Your task to perform on an android device: Show me recent news Image 0: 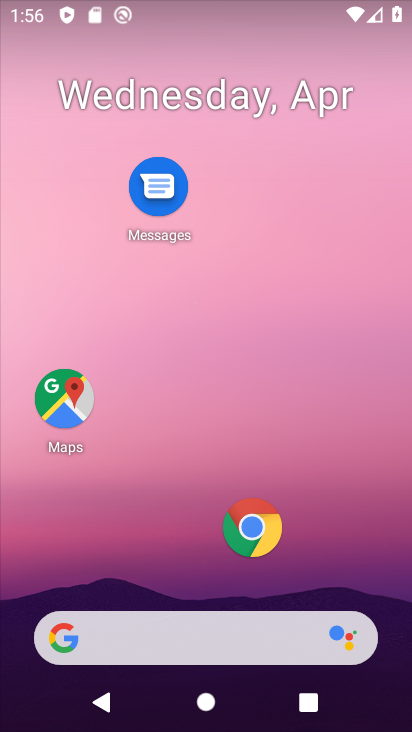
Step 0: click (257, 530)
Your task to perform on an android device: Show me recent news Image 1: 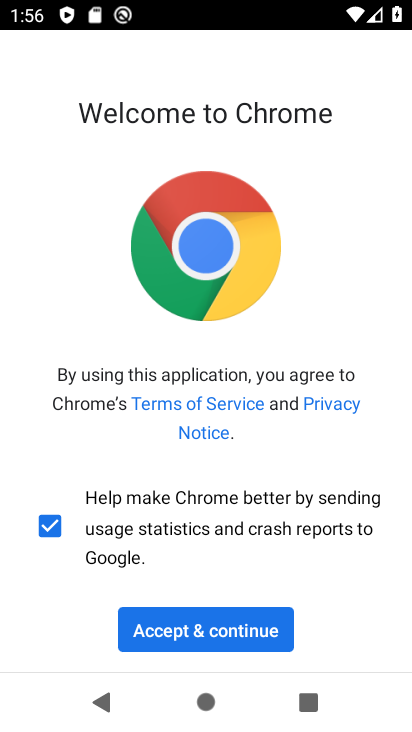
Step 1: click (199, 633)
Your task to perform on an android device: Show me recent news Image 2: 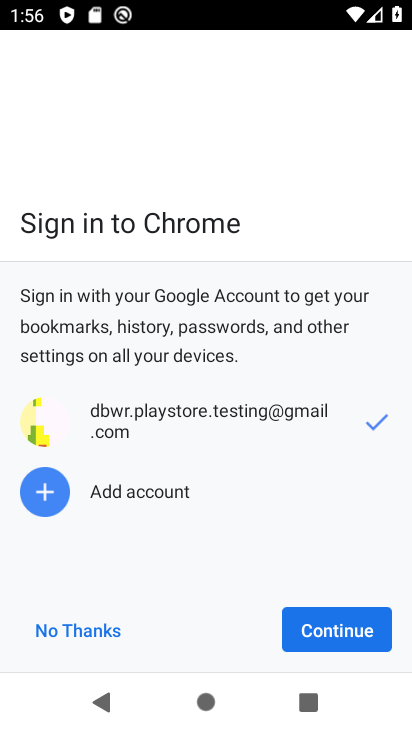
Step 2: click (356, 625)
Your task to perform on an android device: Show me recent news Image 3: 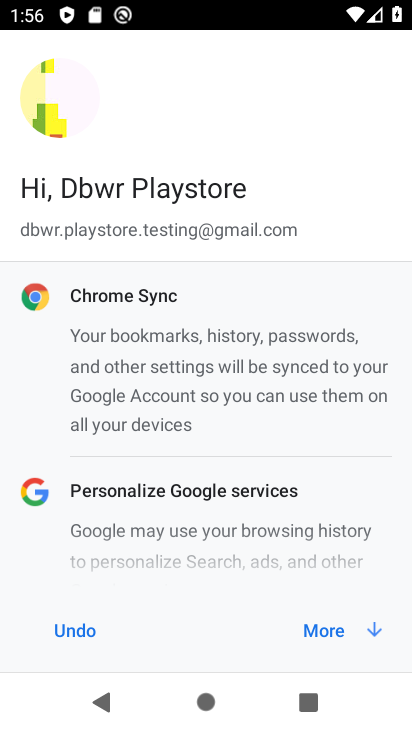
Step 3: click (332, 632)
Your task to perform on an android device: Show me recent news Image 4: 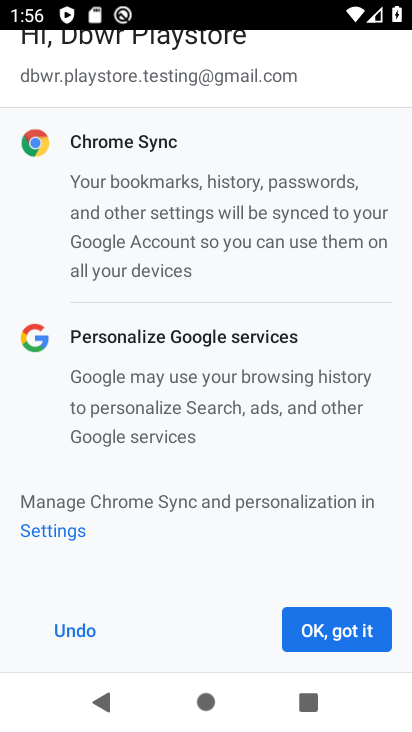
Step 4: click (344, 639)
Your task to perform on an android device: Show me recent news Image 5: 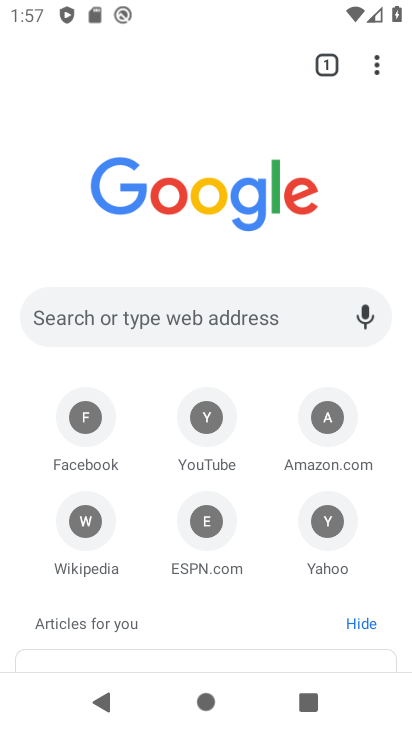
Step 5: click (71, 316)
Your task to perform on an android device: Show me recent news Image 6: 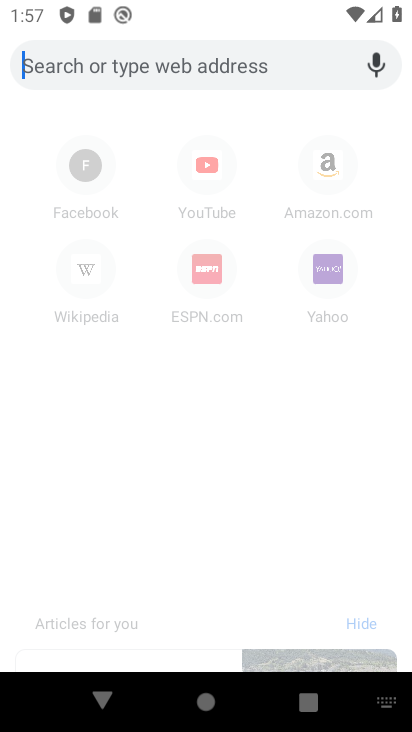
Step 6: type "recent news"
Your task to perform on an android device: Show me recent news Image 7: 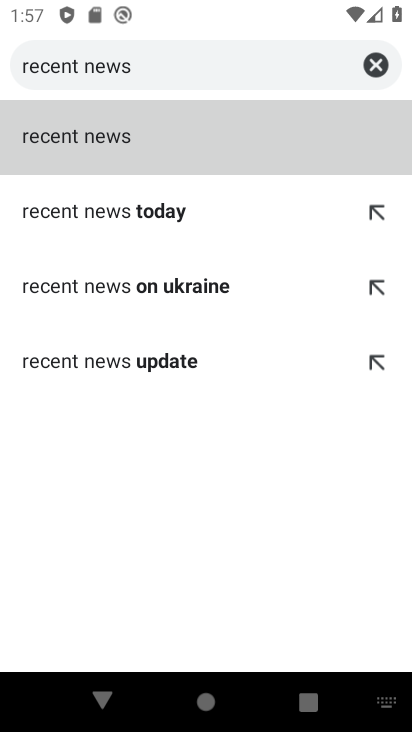
Step 7: click (91, 156)
Your task to perform on an android device: Show me recent news Image 8: 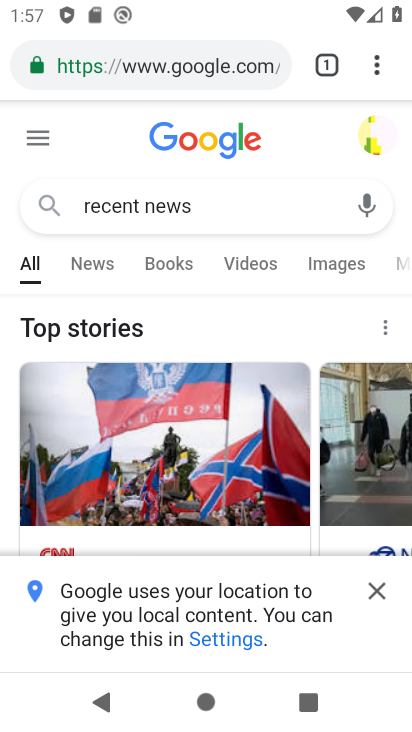
Step 8: task complete